Your task to perform on an android device: Go to Amazon Image 0: 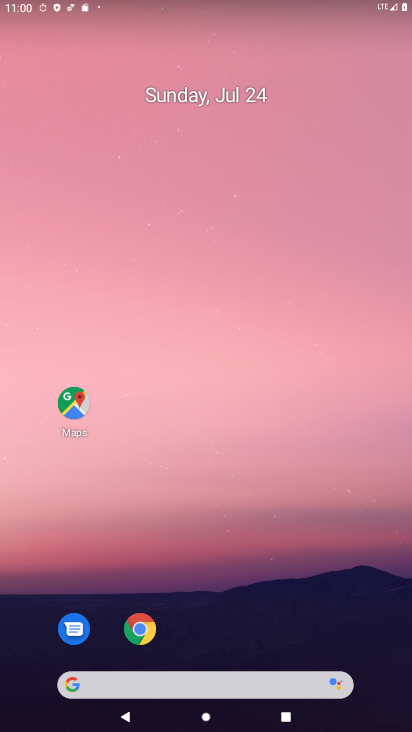
Step 0: drag from (279, 661) to (323, 60)
Your task to perform on an android device: Go to Amazon Image 1: 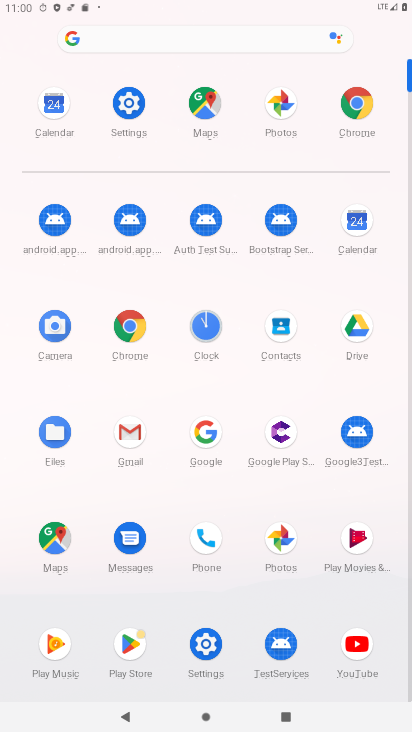
Step 1: click (351, 99)
Your task to perform on an android device: Go to Amazon Image 2: 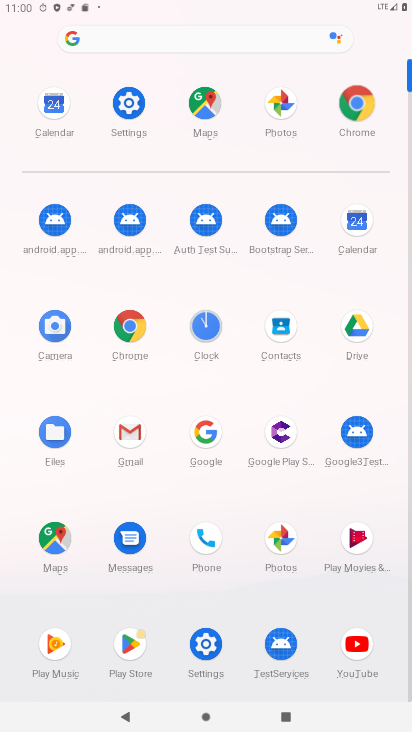
Step 2: click (353, 89)
Your task to perform on an android device: Go to Amazon Image 3: 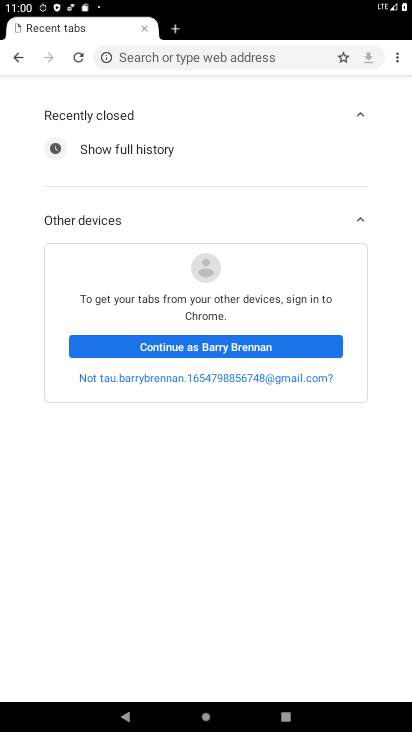
Step 3: click (24, 56)
Your task to perform on an android device: Go to Amazon Image 4: 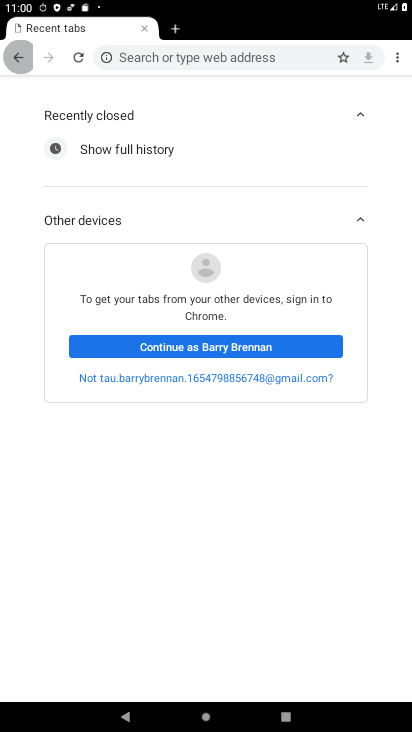
Step 4: click (13, 48)
Your task to perform on an android device: Go to Amazon Image 5: 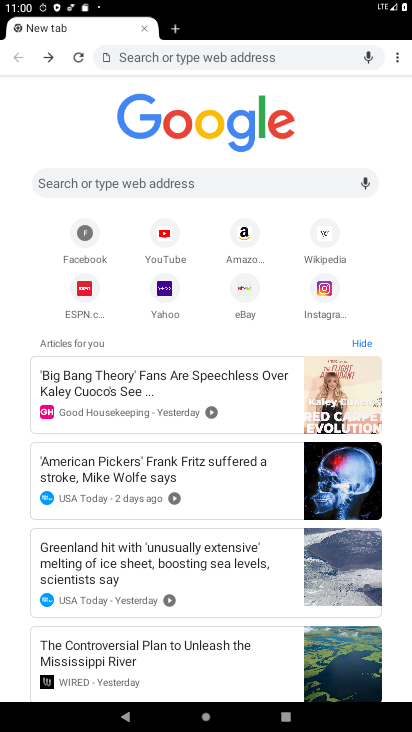
Step 5: click (248, 231)
Your task to perform on an android device: Go to Amazon Image 6: 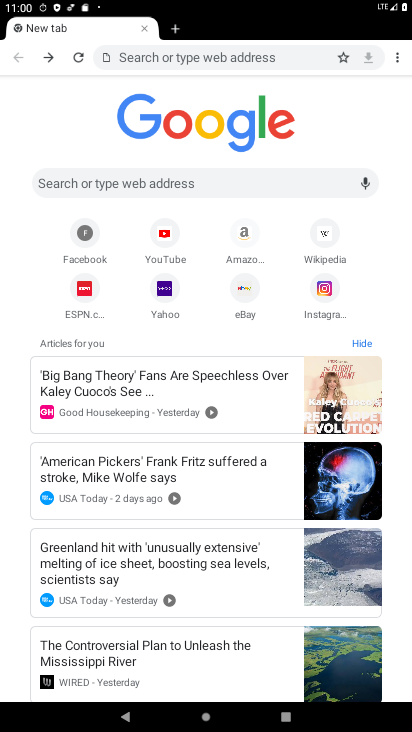
Step 6: click (244, 230)
Your task to perform on an android device: Go to Amazon Image 7: 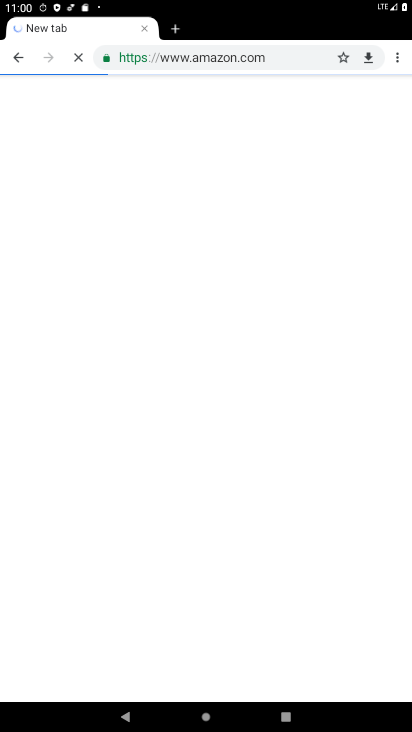
Step 7: click (261, 229)
Your task to perform on an android device: Go to Amazon Image 8: 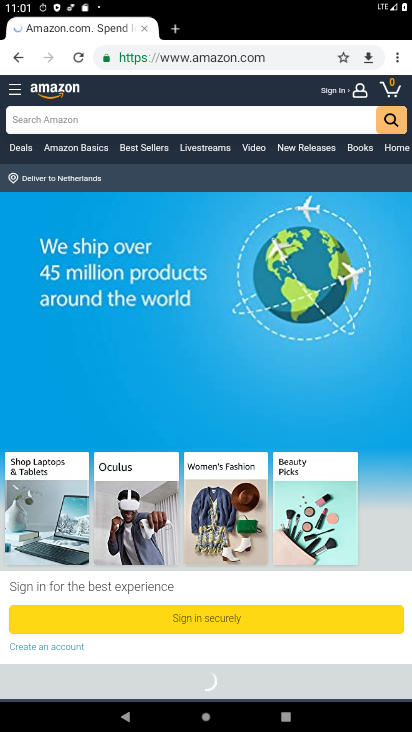
Step 8: task complete